Your task to perform on an android device: install app "Microsoft Excel" Image 0: 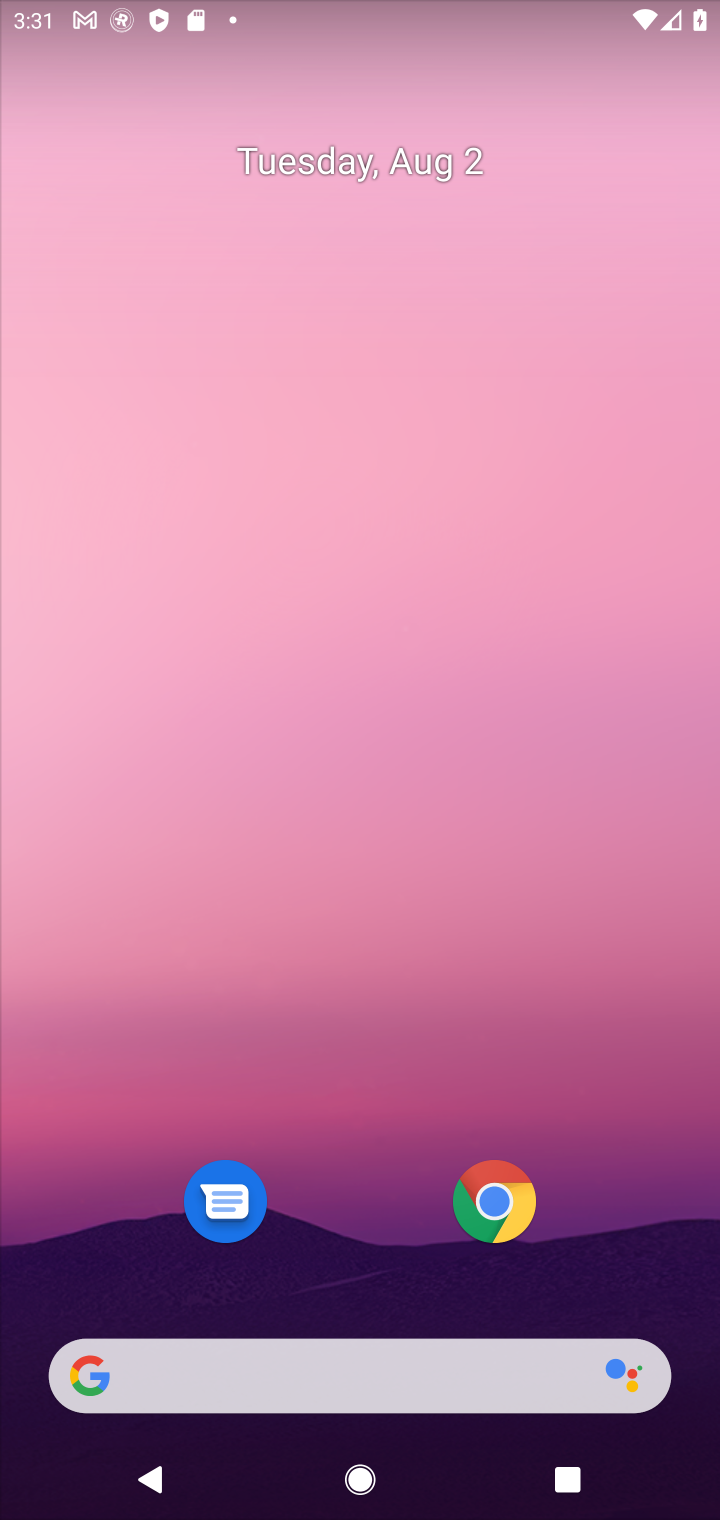
Step 0: drag from (365, 1286) to (397, 146)
Your task to perform on an android device: install app "Microsoft Excel" Image 1: 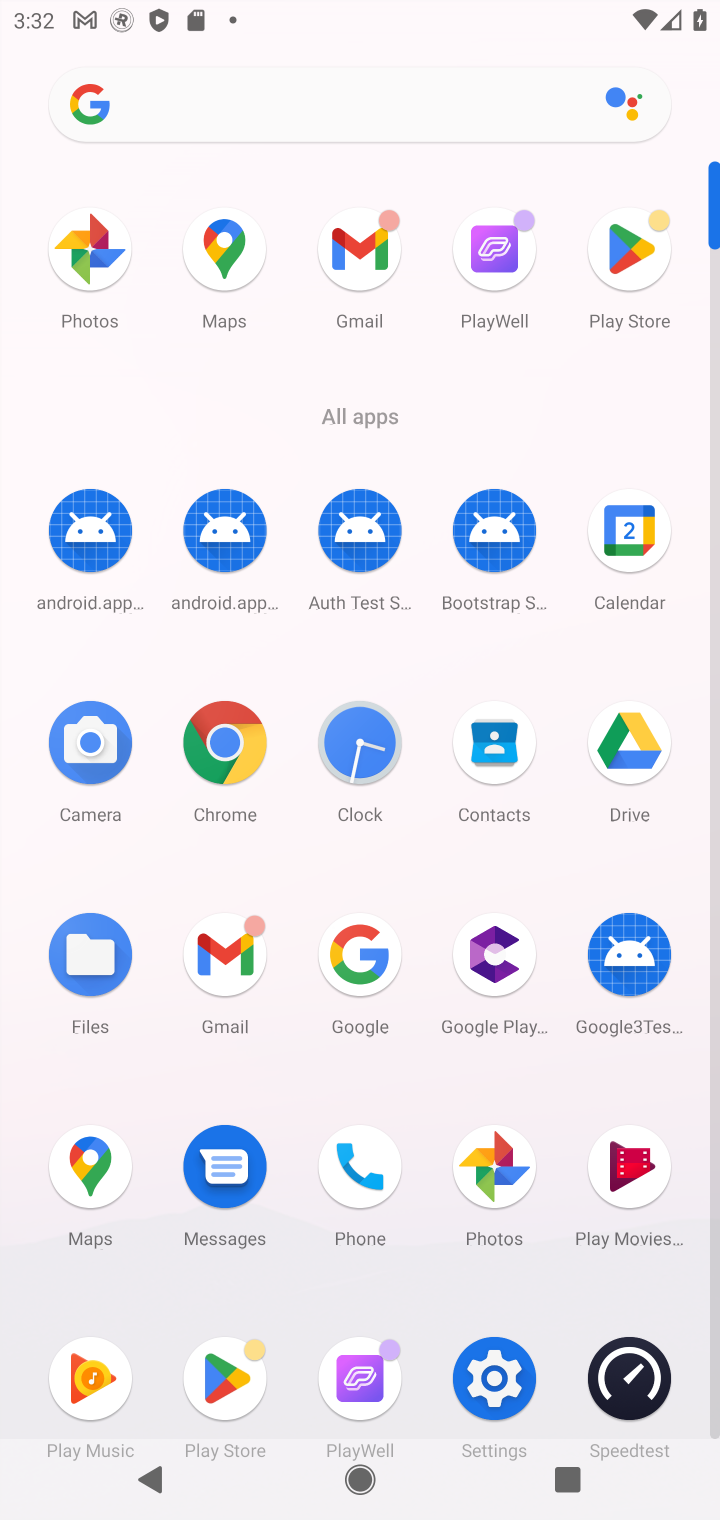
Step 1: click (623, 240)
Your task to perform on an android device: install app "Microsoft Excel" Image 2: 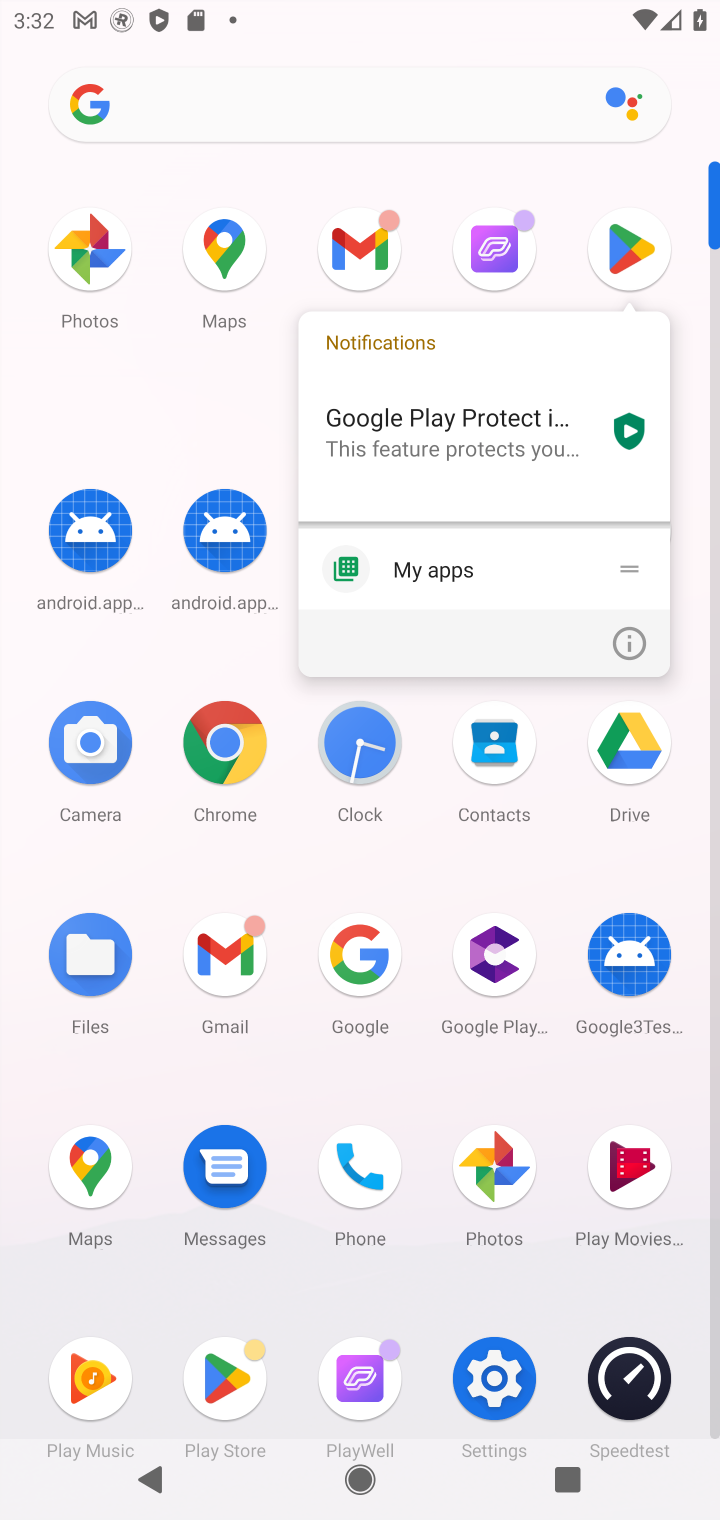
Step 2: click (617, 237)
Your task to perform on an android device: install app "Microsoft Excel" Image 3: 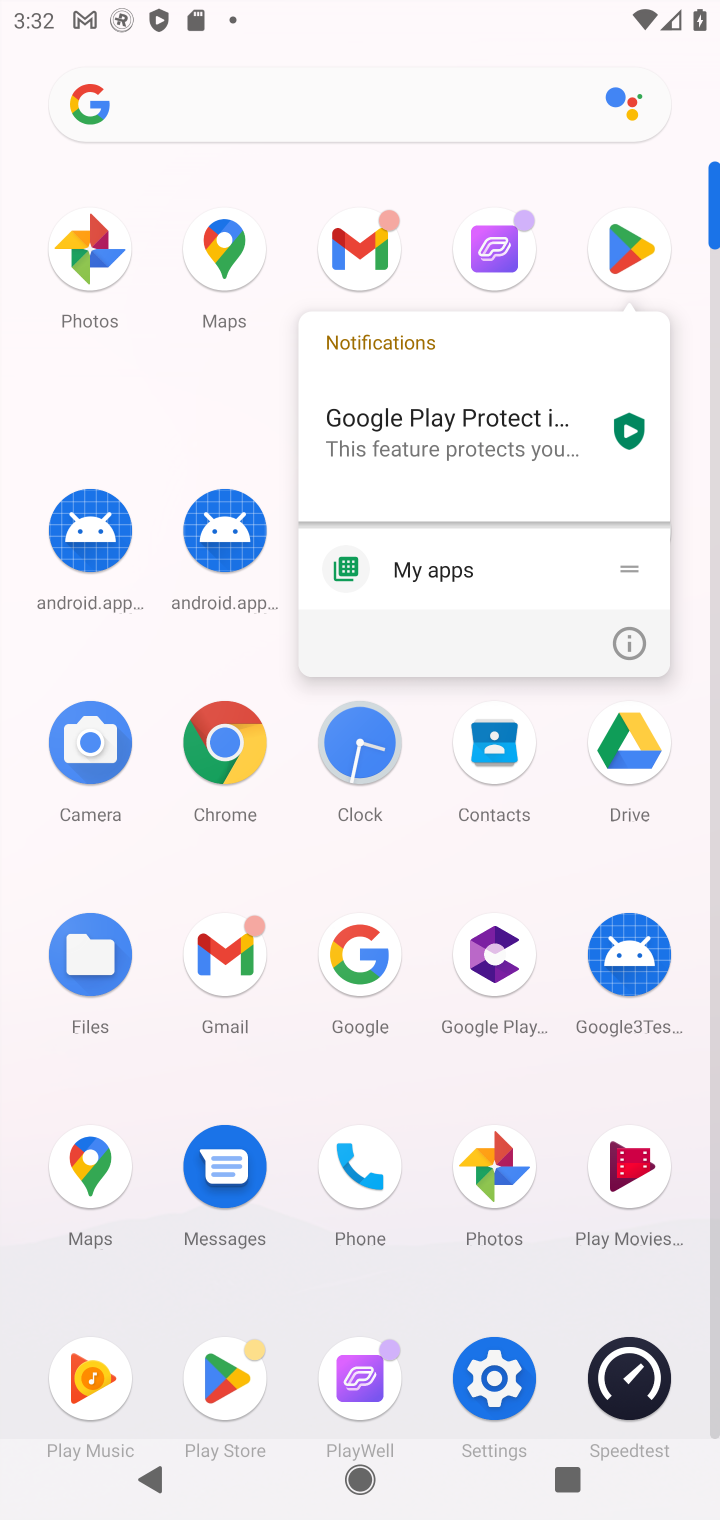
Step 3: click (622, 241)
Your task to perform on an android device: install app "Microsoft Excel" Image 4: 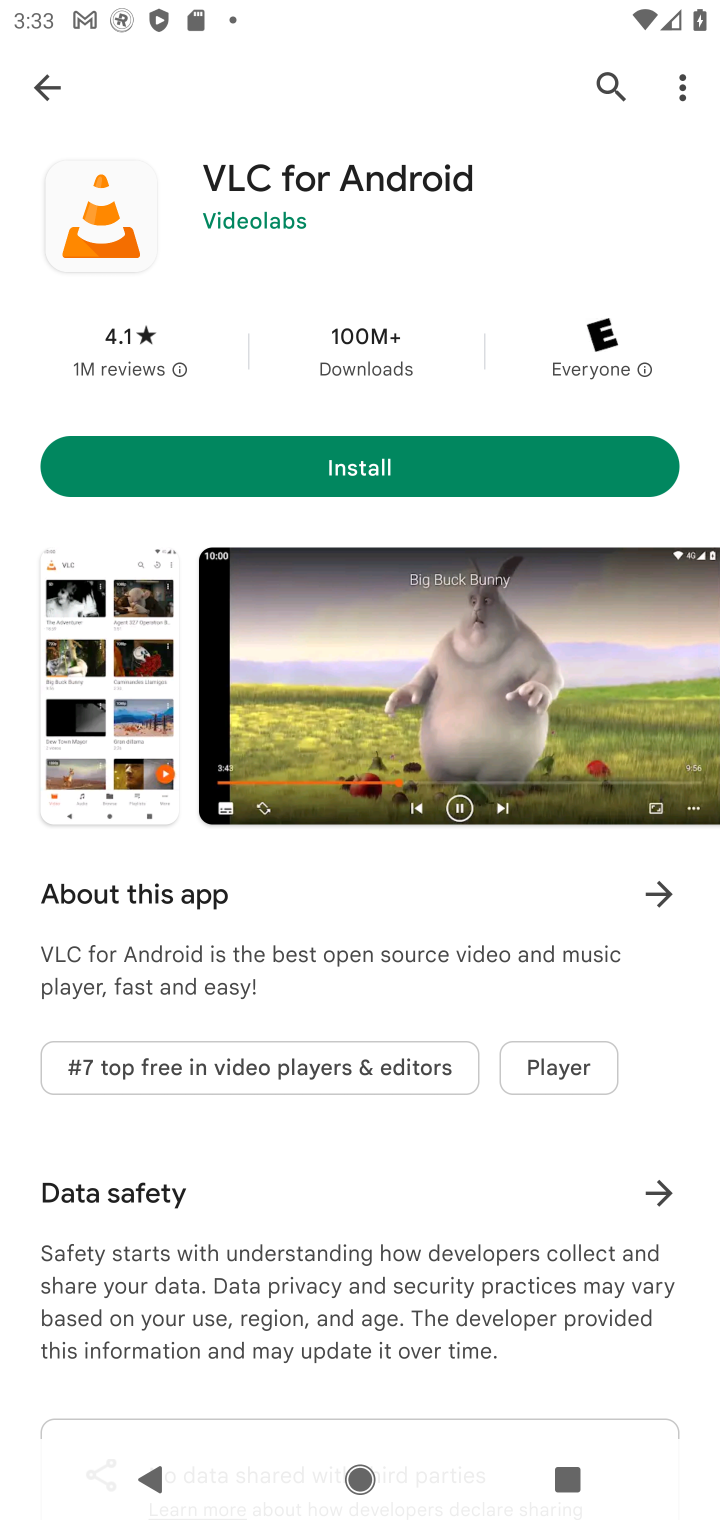
Step 4: click (608, 80)
Your task to perform on an android device: install app "Microsoft Excel" Image 5: 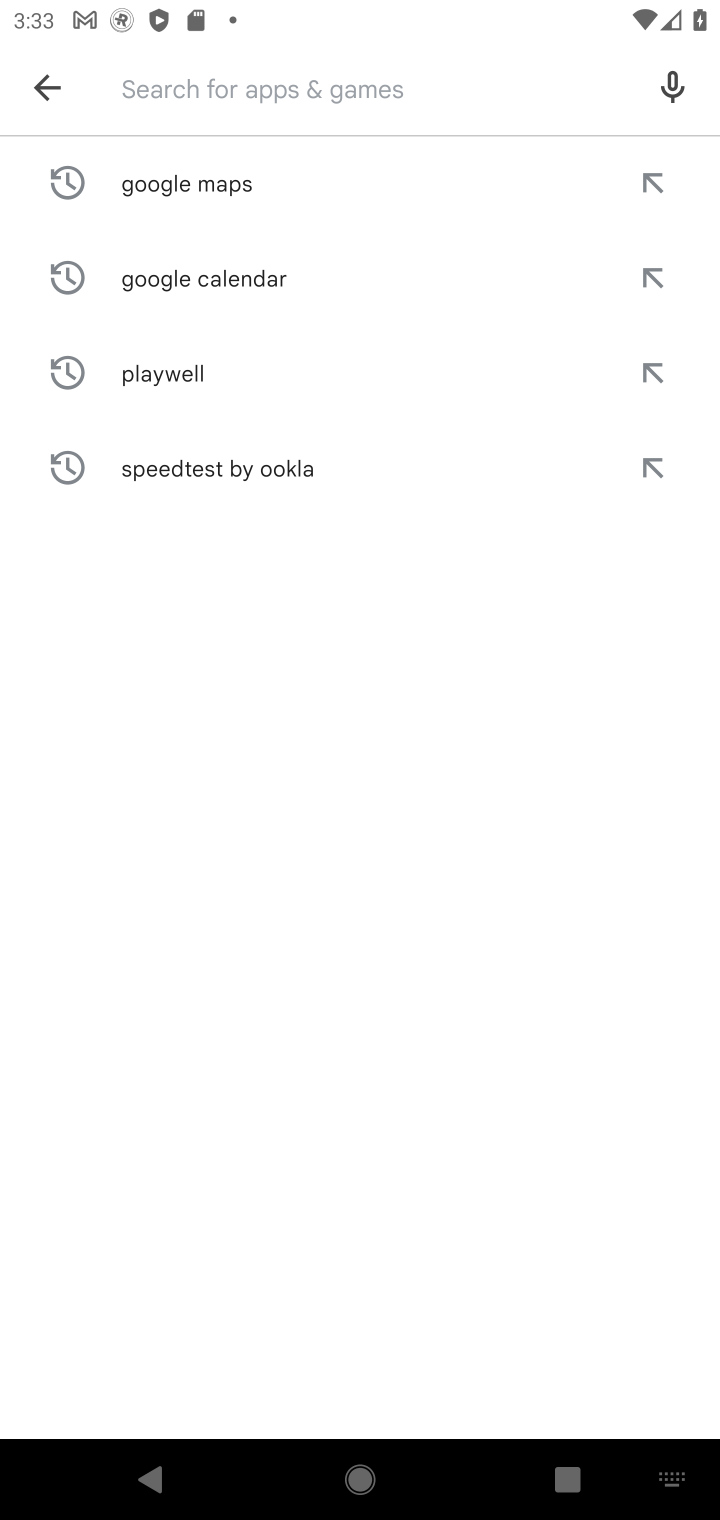
Step 5: type "Microsoft Excel"
Your task to perform on an android device: install app "Microsoft Excel" Image 6: 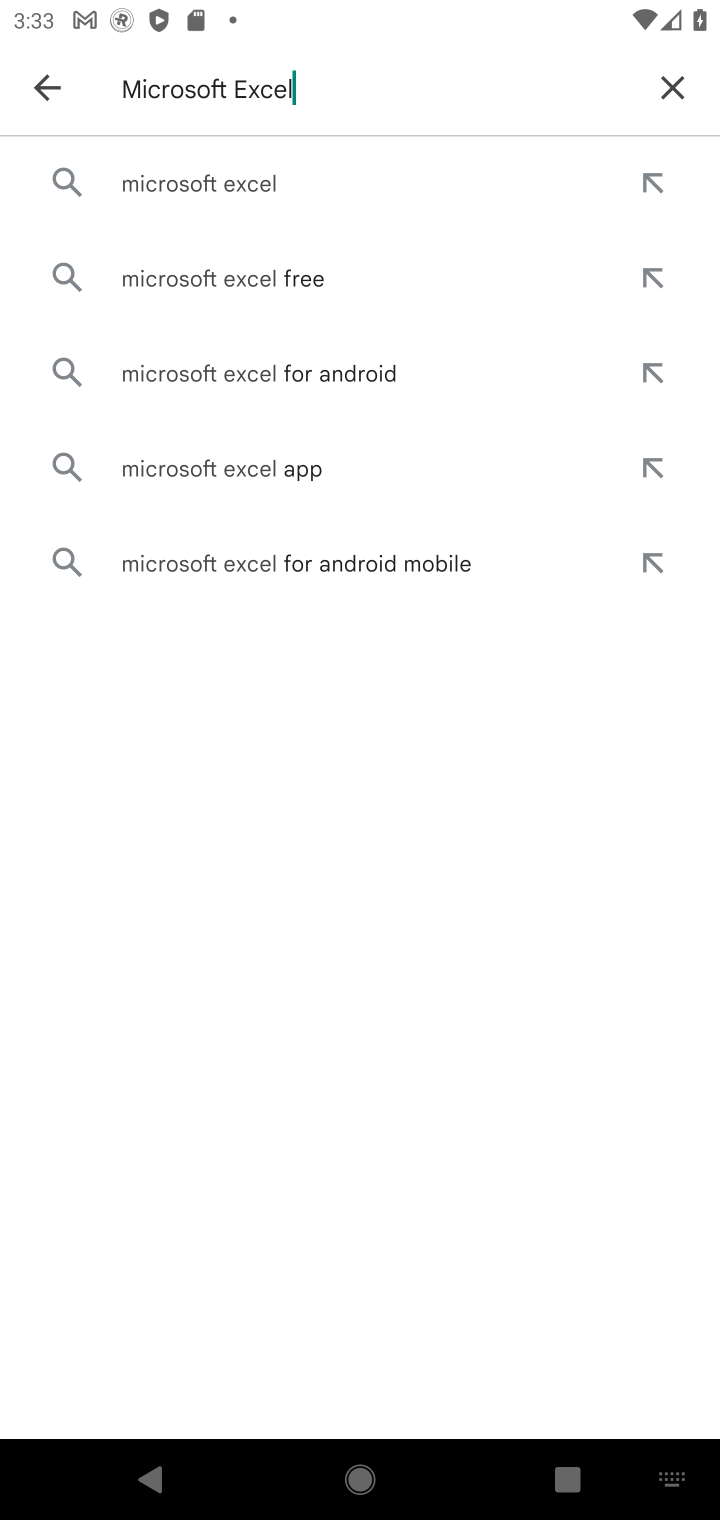
Step 6: click (246, 177)
Your task to perform on an android device: install app "Microsoft Excel" Image 7: 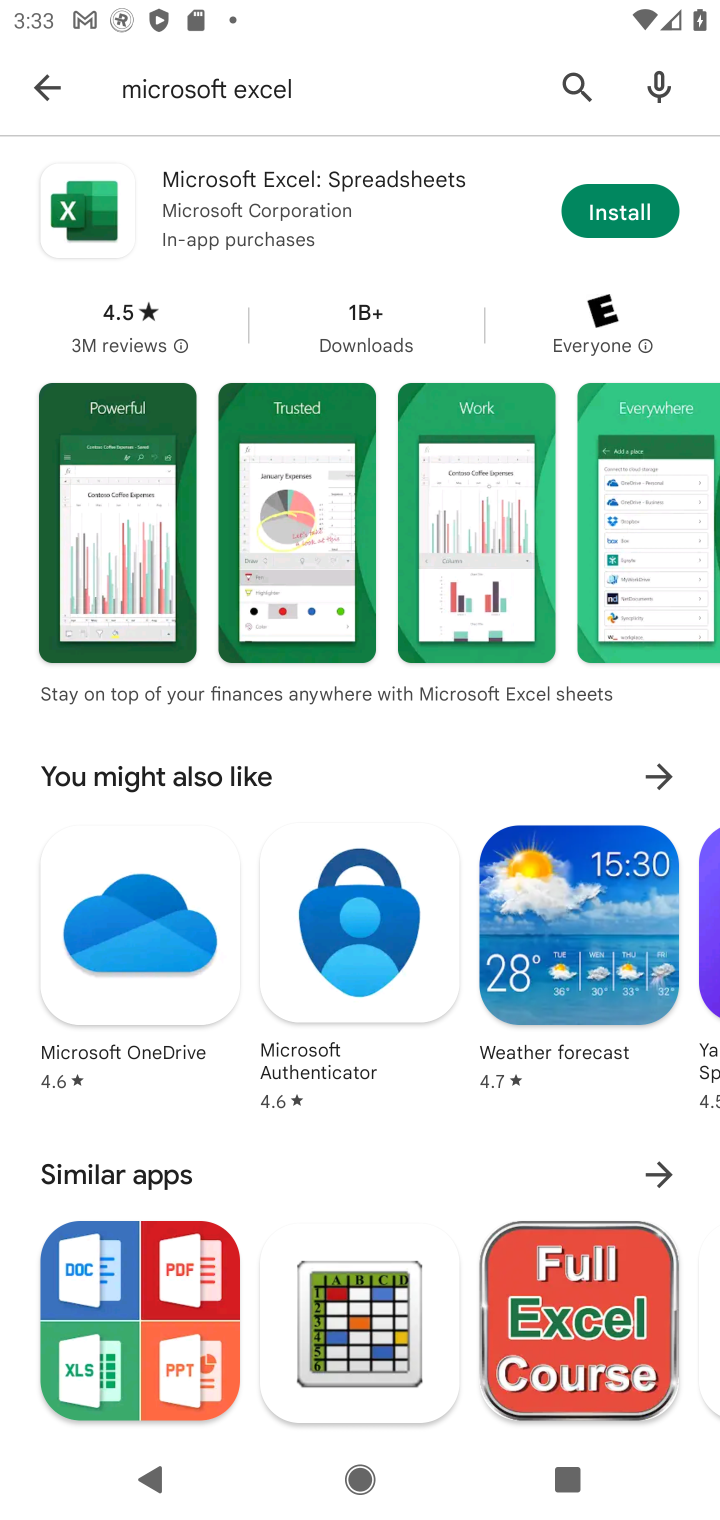
Step 7: click (632, 202)
Your task to perform on an android device: install app "Microsoft Excel" Image 8: 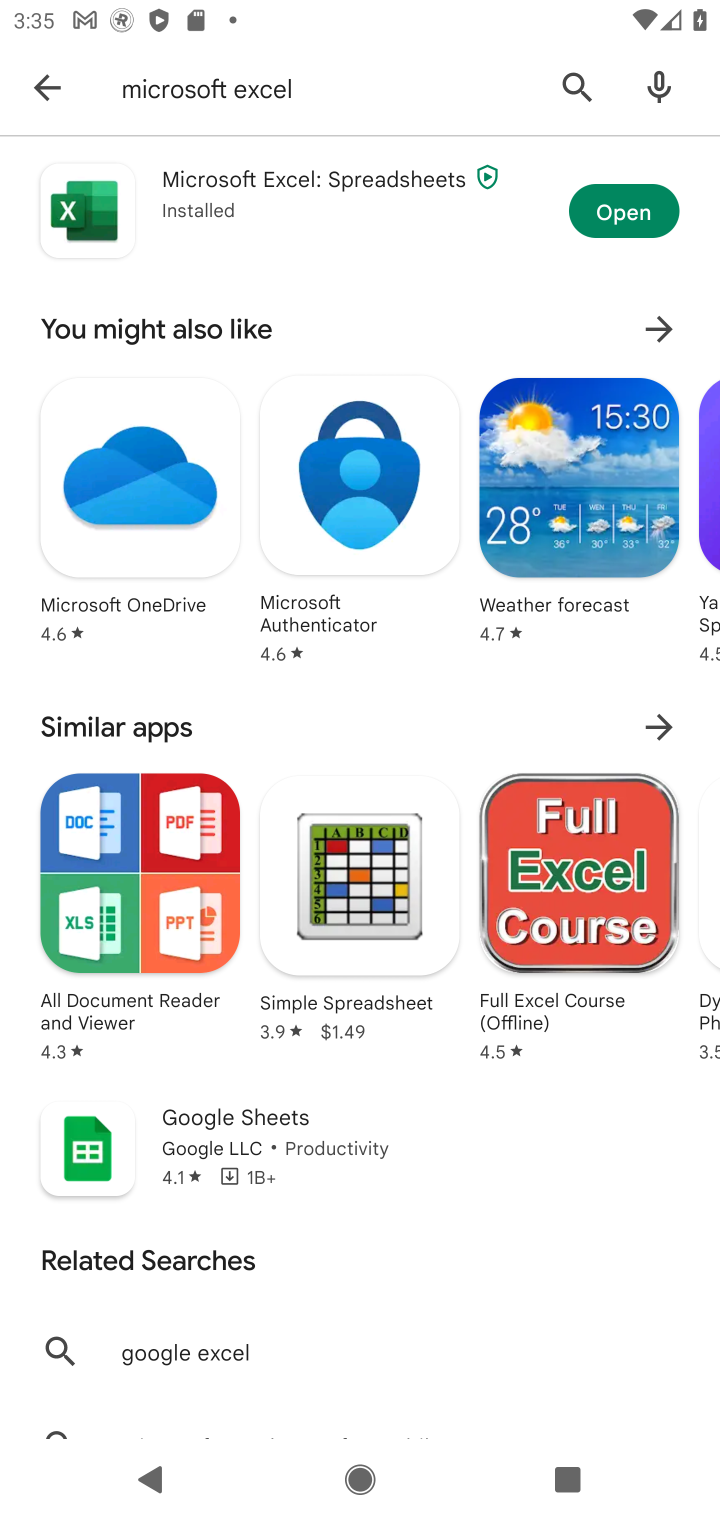
Step 8: click (621, 208)
Your task to perform on an android device: install app "Microsoft Excel" Image 9: 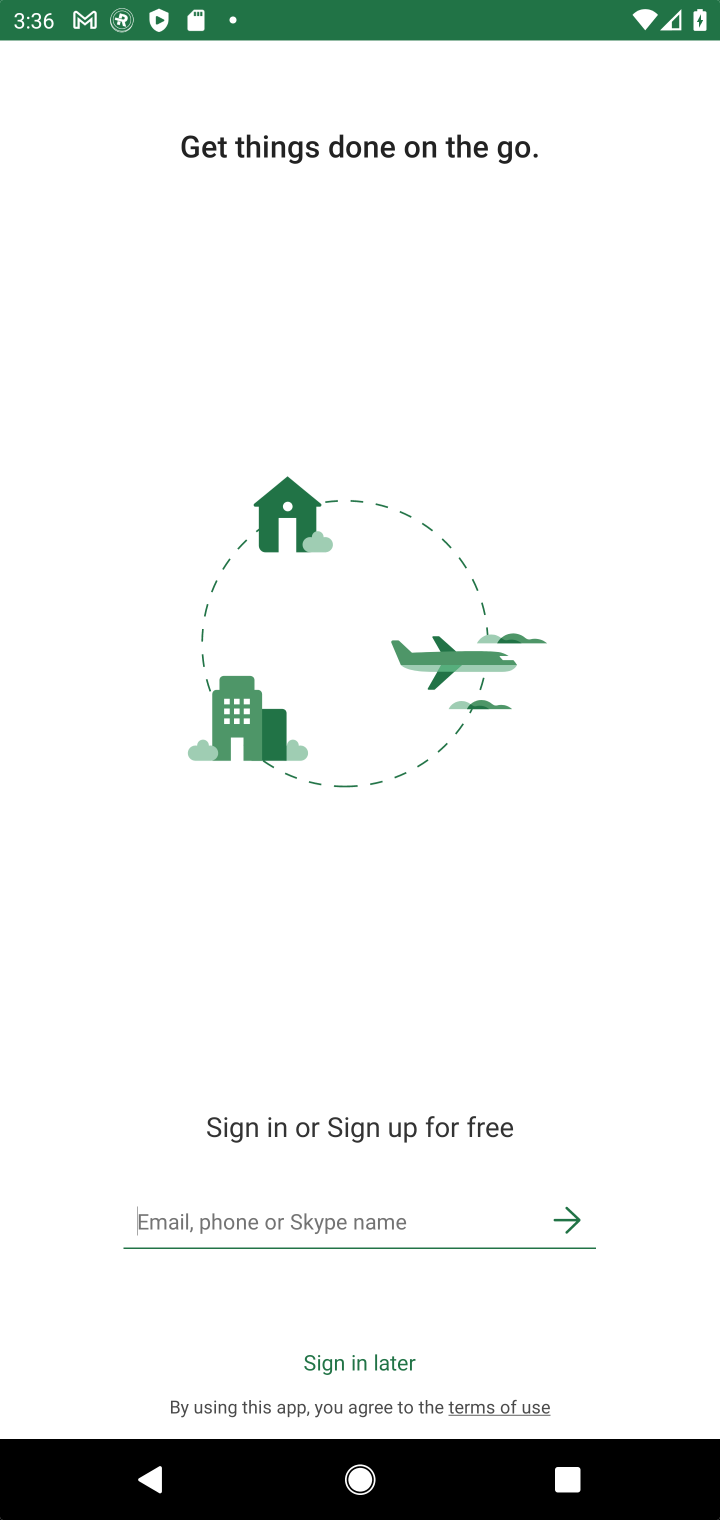
Step 9: click (374, 1370)
Your task to perform on an android device: install app "Microsoft Excel" Image 10: 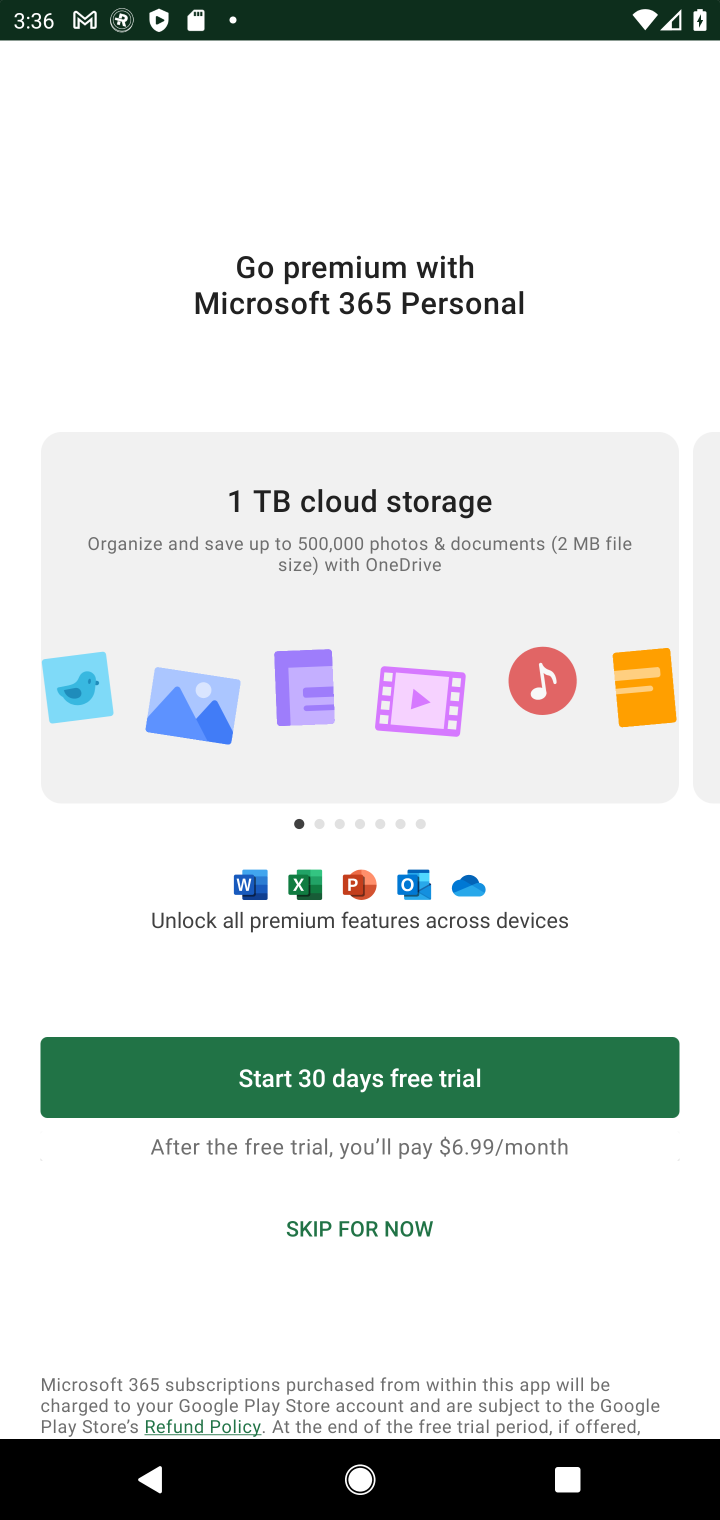
Step 10: click (392, 1225)
Your task to perform on an android device: install app "Microsoft Excel" Image 11: 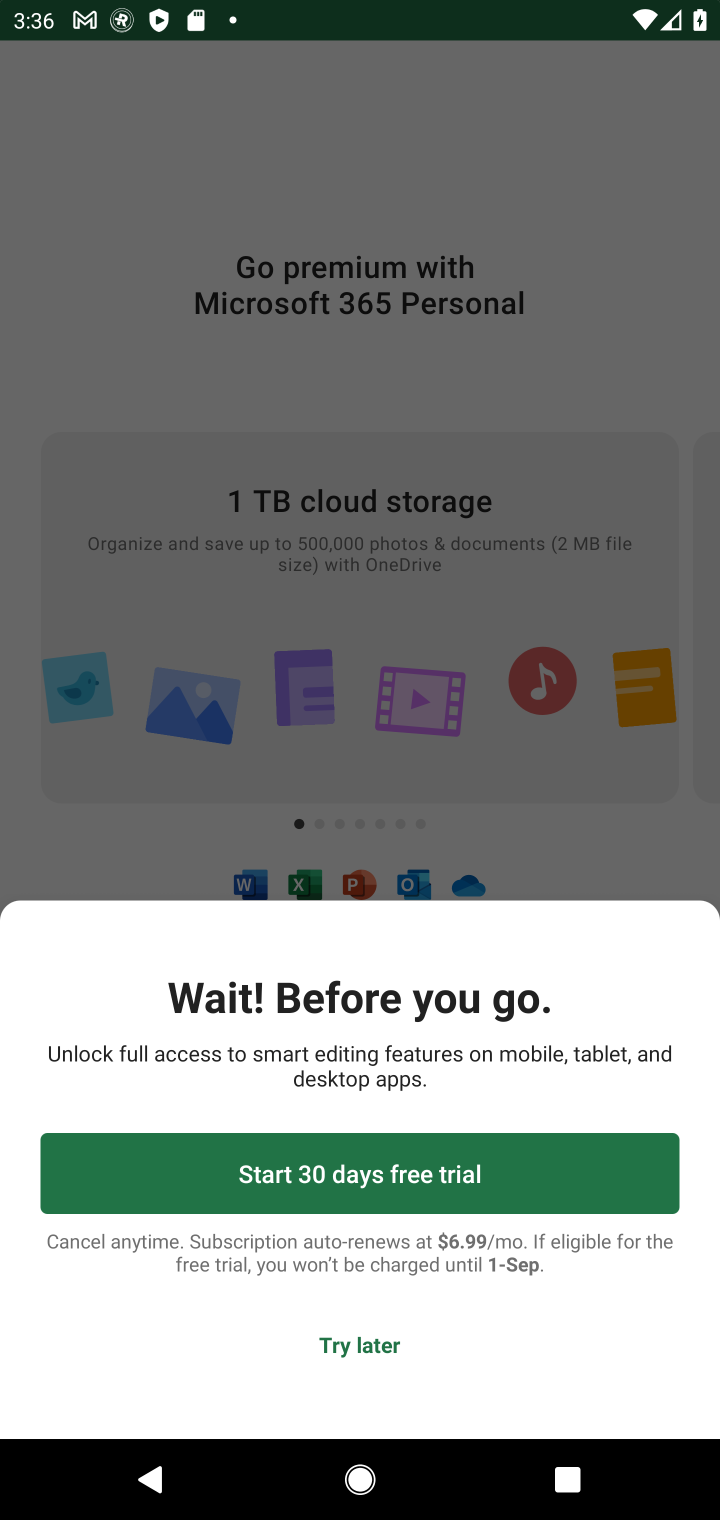
Step 11: click (372, 1340)
Your task to perform on an android device: install app "Microsoft Excel" Image 12: 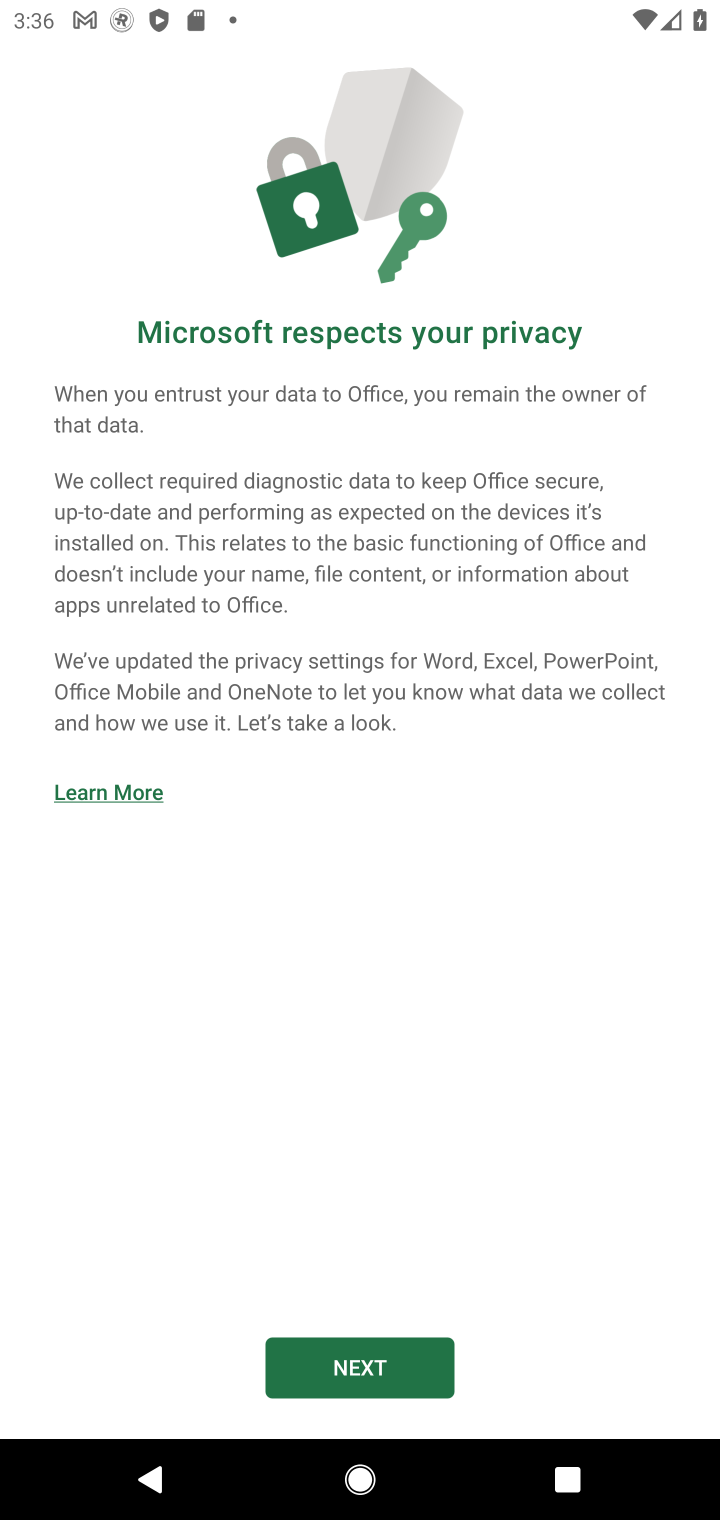
Step 12: task complete